Your task to perform on an android device: change notifications settings Image 0: 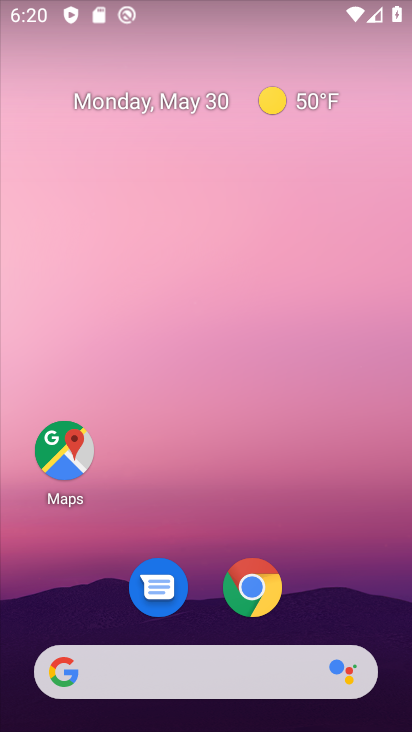
Step 0: drag from (321, 556) to (182, 4)
Your task to perform on an android device: change notifications settings Image 1: 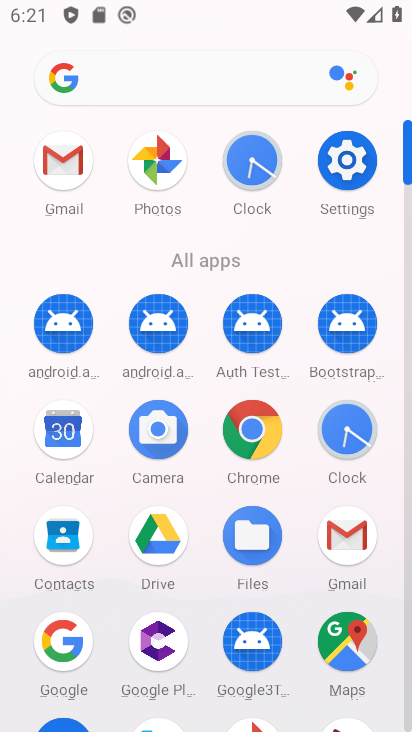
Step 1: drag from (7, 548) to (9, 214)
Your task to perform on an android device: change notifications settings Image 2: 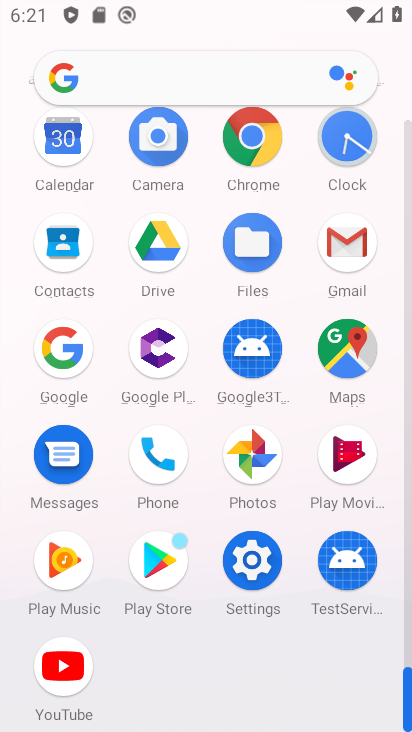
Step 2: click (244, 557)
Your task to perform on an android device: change notifications settings Image 3: 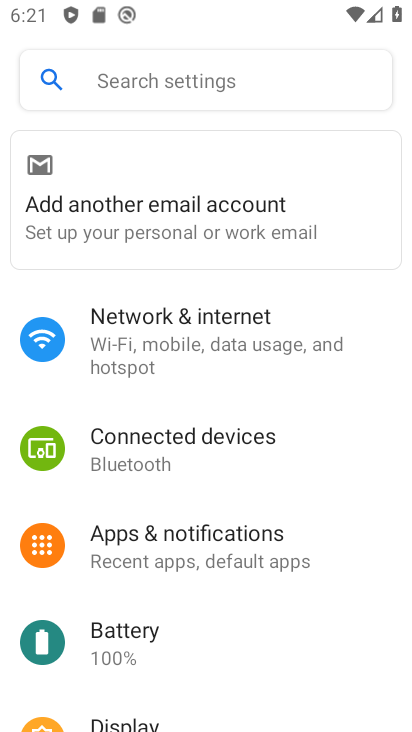
Step 3: drag from (310, 596) to (309, 250)
Your task to perform on an android device: change notifications settings Image 4: 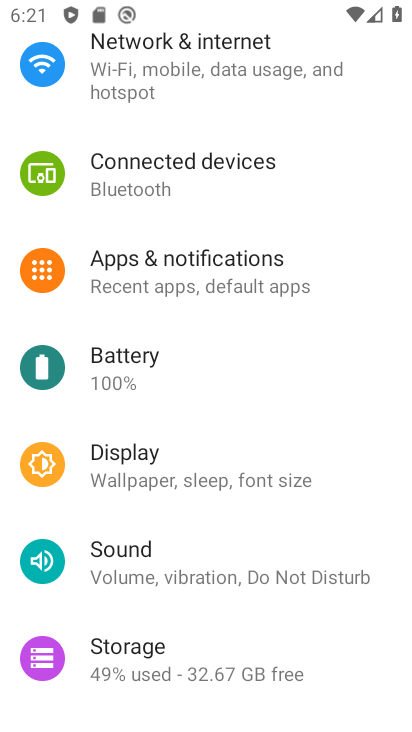
Step 4: click (240, 257)
Your task to perform on an android device: change notifications settings Image 5: 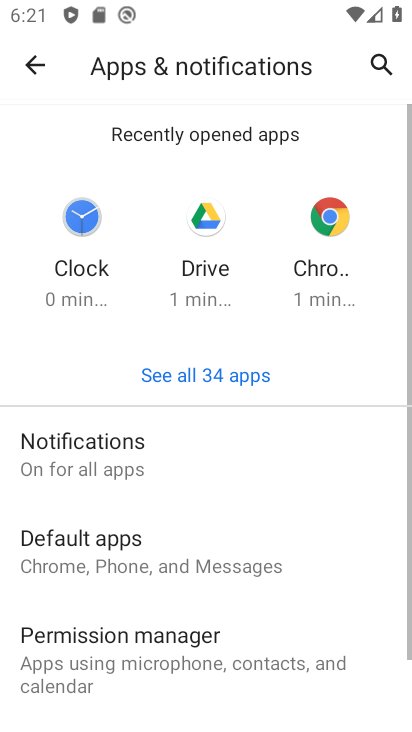
Step 5: click (167, 423)
Your task to perform on an android device: change notifications settings Image 6: 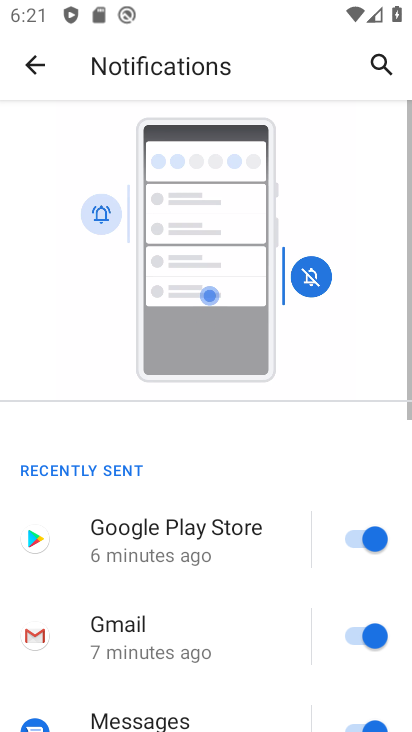
Step 6: drag from (274, 648) to (266, 149)
Your task to perform on an android device: change notifications settings Image 7: 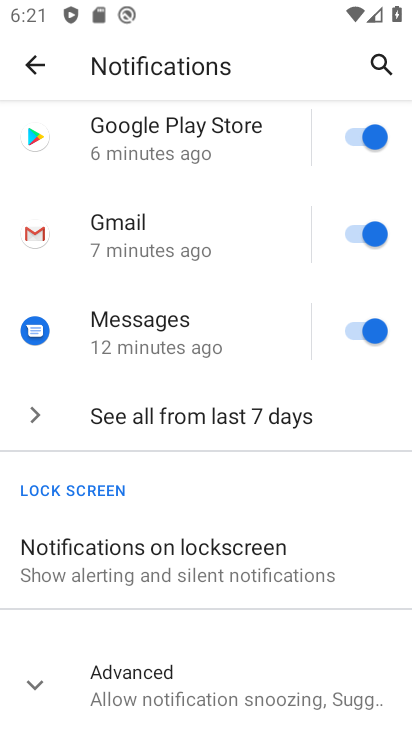
Step 7: click (147, 668)
Your task to perform on an android device: change notifications settings Image 8: 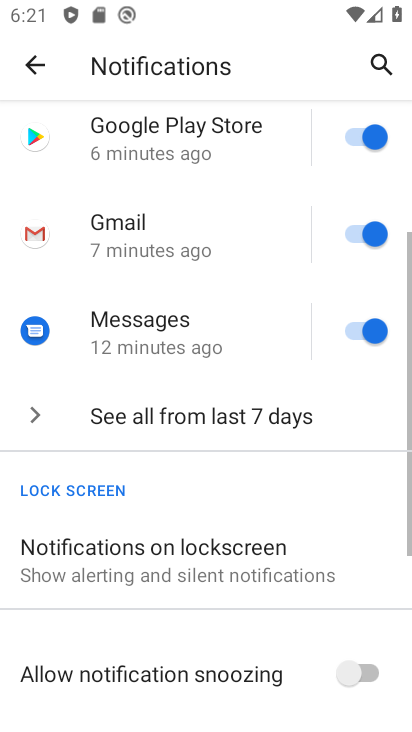
Step 8: drag from (237, 656) to (238, 197)
Your task to perform on an android device: change notifications settings Image 9: 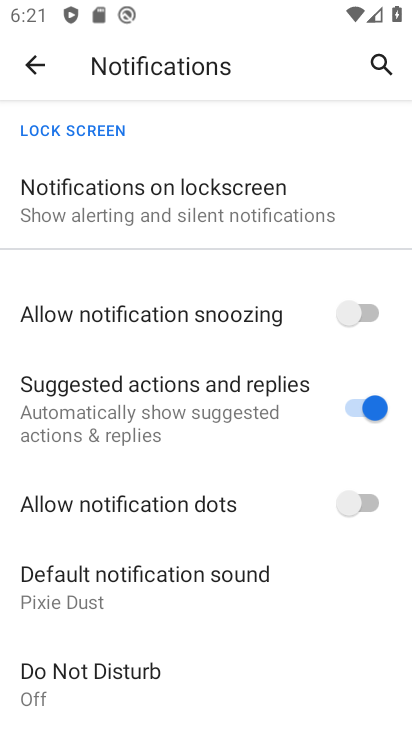
Step 9: click (214, 221)
Your task to perform on an android device: change notifications settings Image 10: 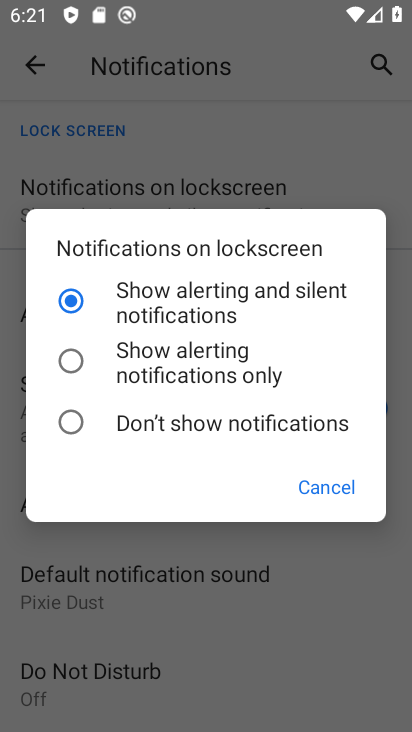
Step 10: click (185, 290)
Your task to perform on an android device: change notifications settings Image 11: 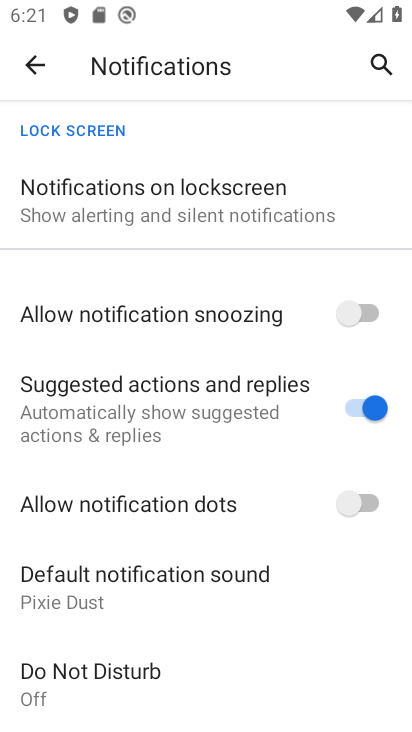
Step 11: task complete